Your task to perform on an android device: Go to Google Image 0: 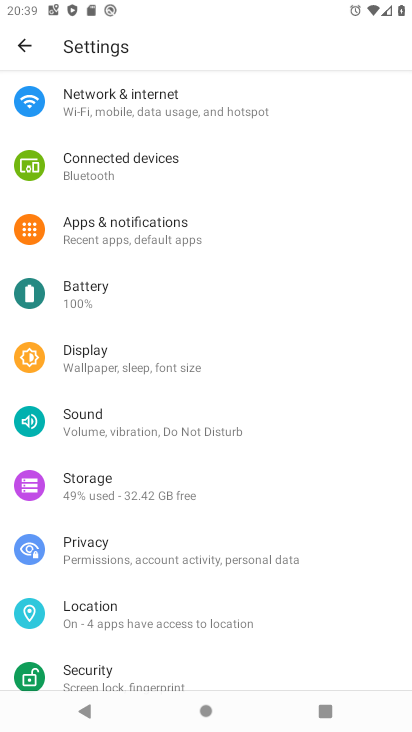
Step 0: press home button
Your task to perform on an android device: Go to Google Image 1: 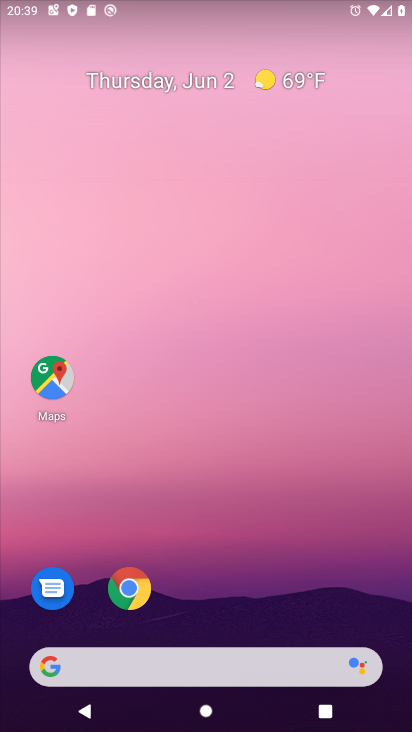
Step 1: drag from (239, 726) to (258, 76)
Your task to perform on an android device: Go to Google Image 2: 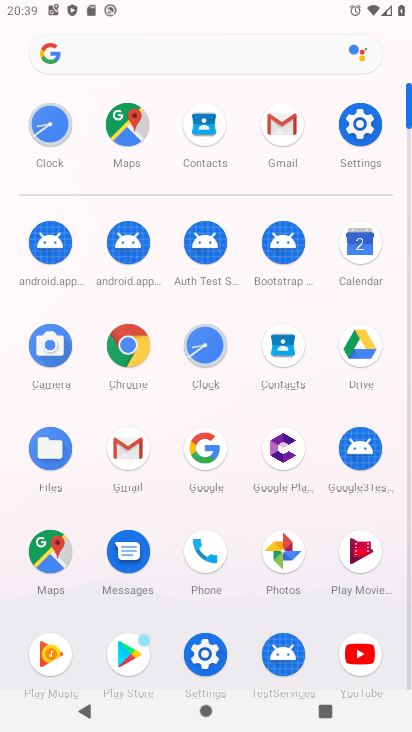
Step 2: click (211, 453)
Your task to perform on an android device: Go to Google Image 3: 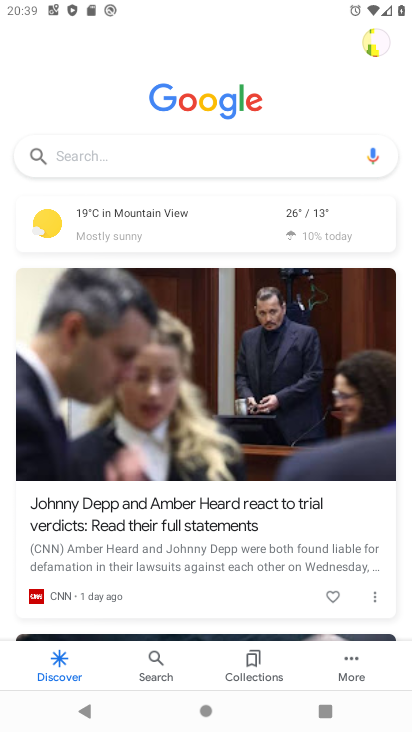
Step 3: task complete